Your task to perform on an android device: Go to CNN.com Image 0: 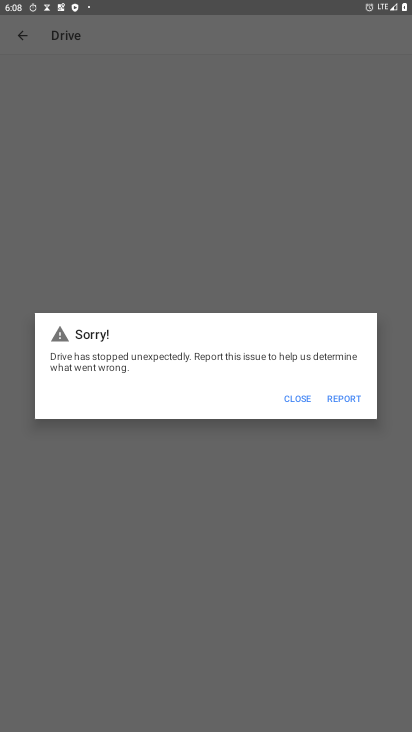
Step 0: press home button
Your task to perform on an android device: Go to CNN.com Image 1: 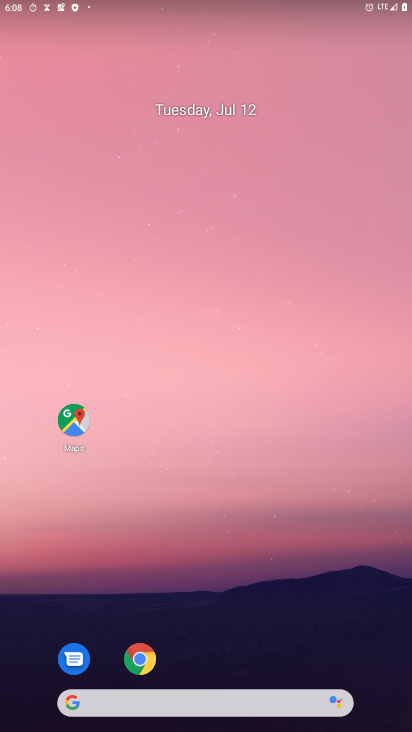
Step 1: click (135, 666)
Your task to perform on an android device: Go to CNN.com Image 2: 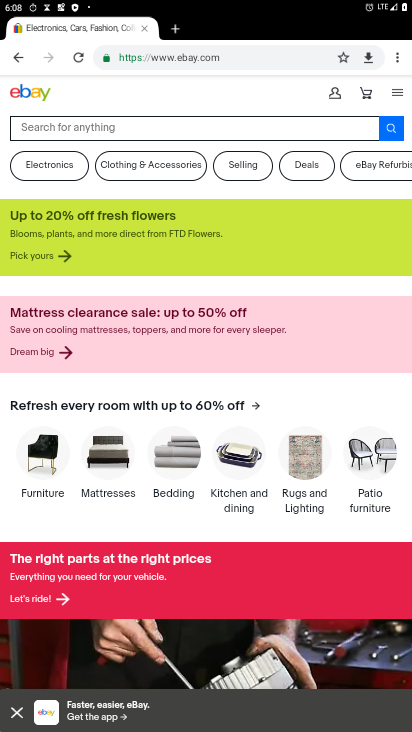
Step 2: click (7, 58)
Your task to perform on an android device: Go to CNN.com Image 3: 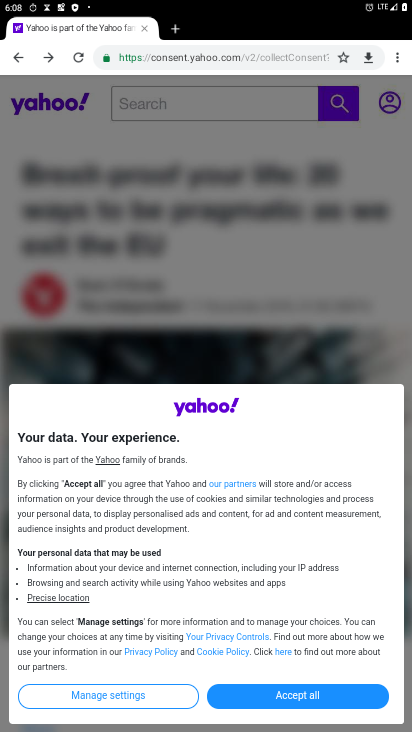
Step 3: click (7, 58)
Your task to perform on an android device: Go to CNN.com Image 4: 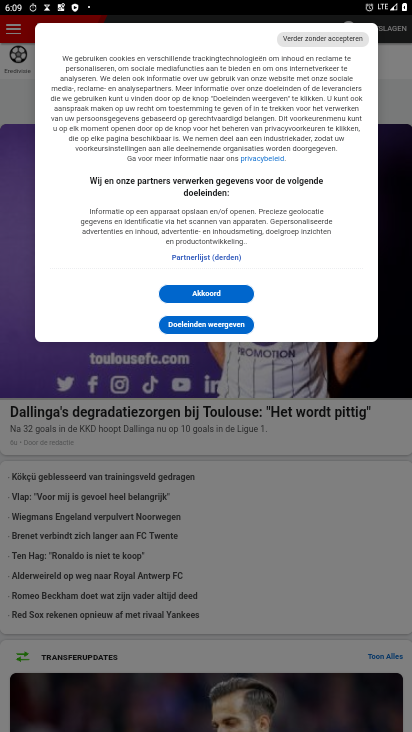
Step 4: press home button
Your task to perform on an android device: Go to CNN.com Image 5: 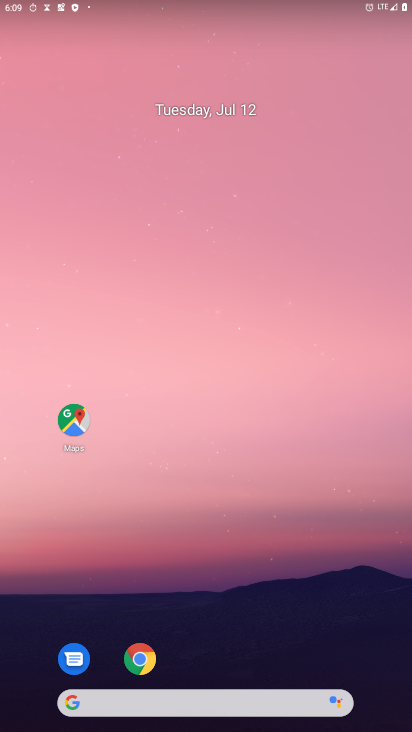
Step 5: click (121, 670)
Your task to perform on an android device: Go to CNN.com Image 6: 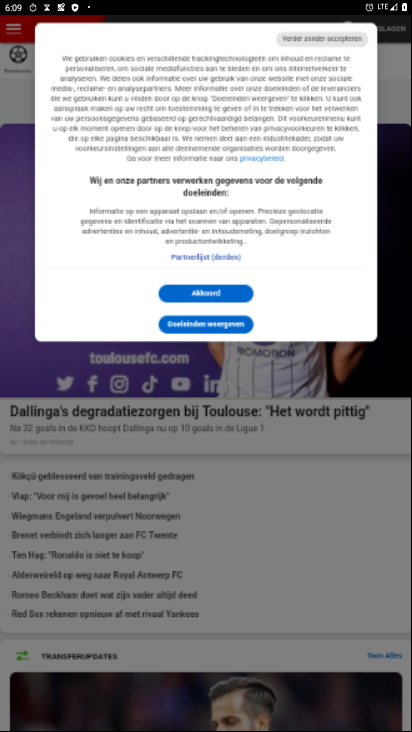
Step 6: click (144, 670)
Your task to perform on an android device: Go to CNN.com Image 7: 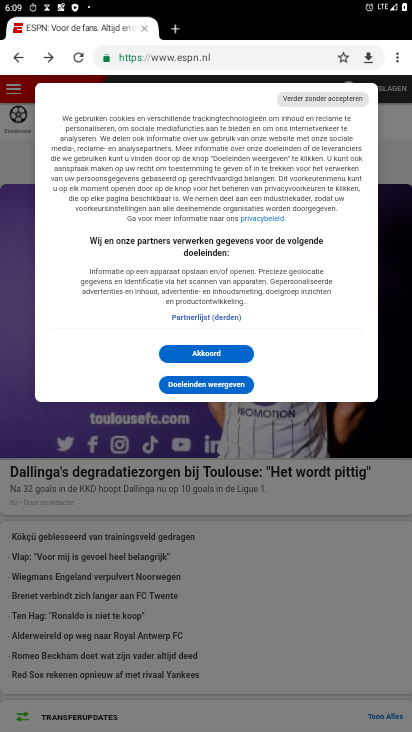
Step 7: click (207, 46)
Your task to perform on an android device: Go to CNN.com Image 8: 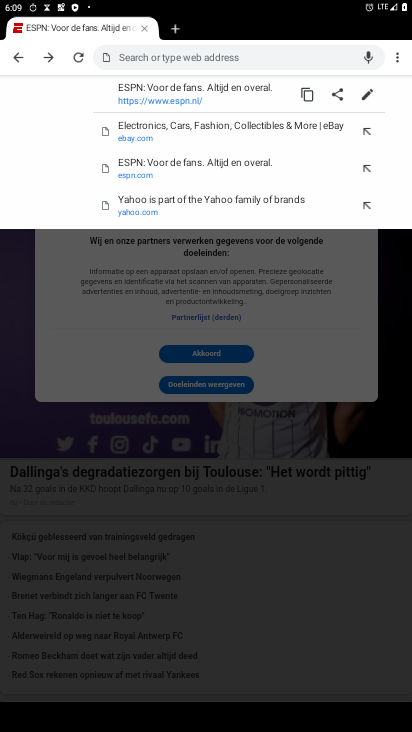
Step 8: type "www.cnn.com"
Your task to perform on an android device: Go to CNN.com Image 9: 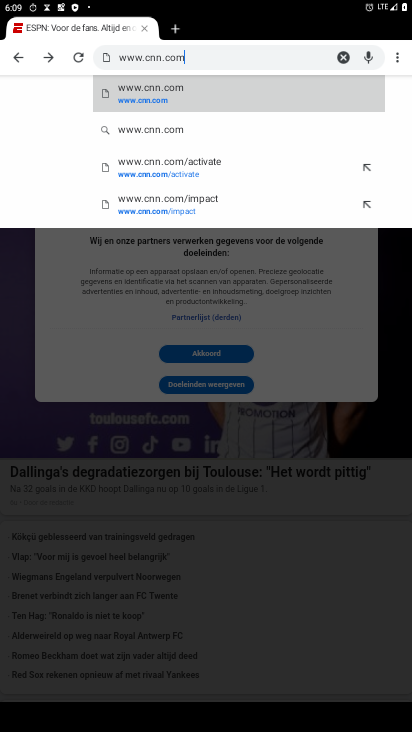
Step 9: click (134, 99)
Your task to perform on an android device: Go to CNN.com Image 10: 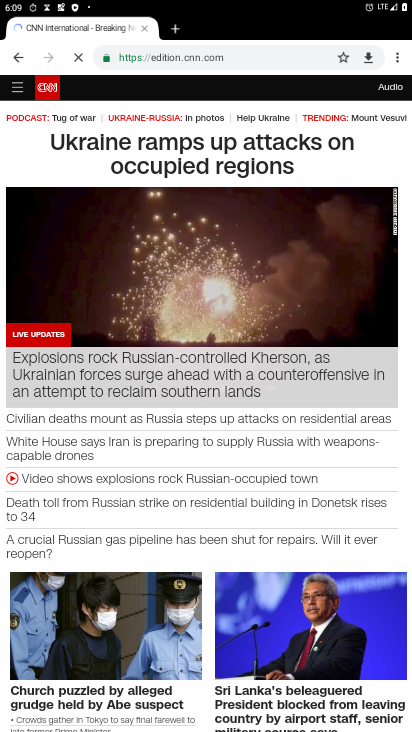
Step 10: task complete